Your task to perform on an android device: turn on wifi Image 0: 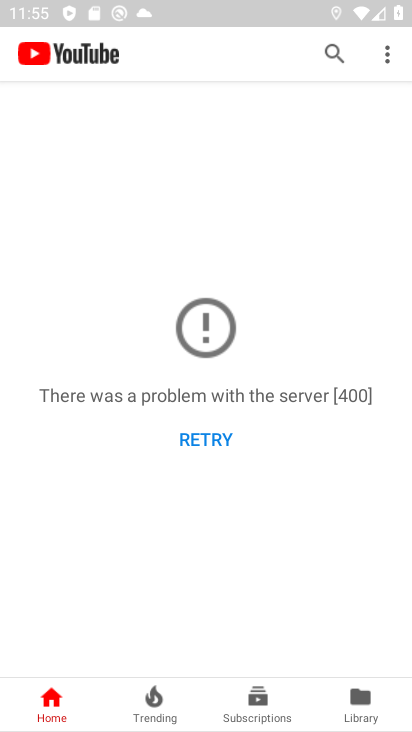
Step 0: press home button
Your task to perform on an android device: turn on wifi Image 1: 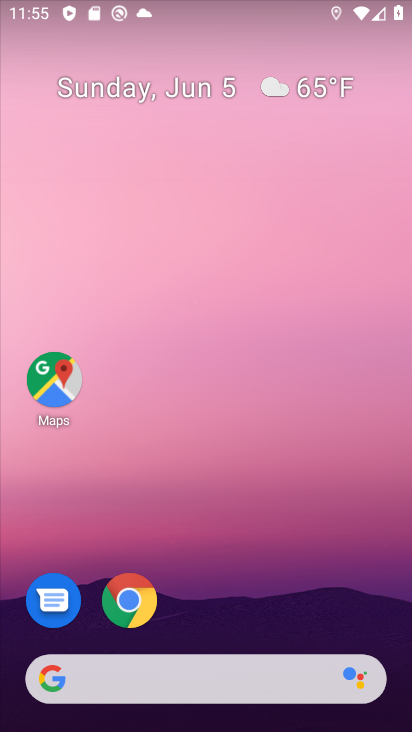
Step 1: drag from (403, 698) to (379, 104)
Your task to perform on an android device: turn on wifi Image 2: 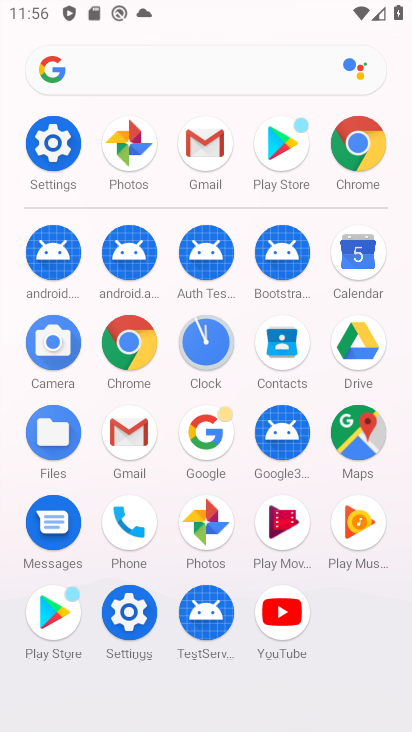
Step 2: click (67, 146)
Your task to perform on an android device: turn on wifi Image 3: 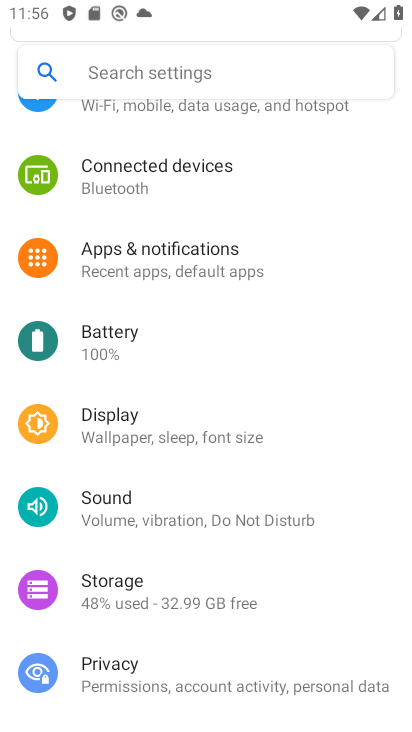
Step 3: drag from (299, 202) to (326, 698)
Your task to perform on an android device: turn on wifi Image 4: 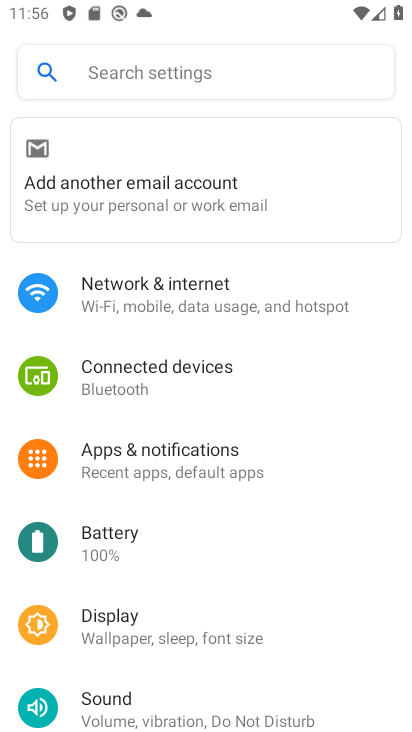
Step 4: click (135, 297)
Your task to perform on an android device: turn on wifi Image 5: 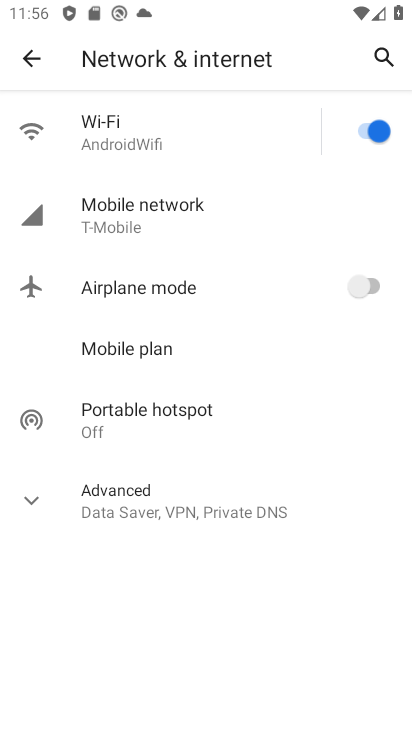
Step 5: task complete